Your task to perform on an android device: Open calendar and show me the fourth week of next month Image 0: 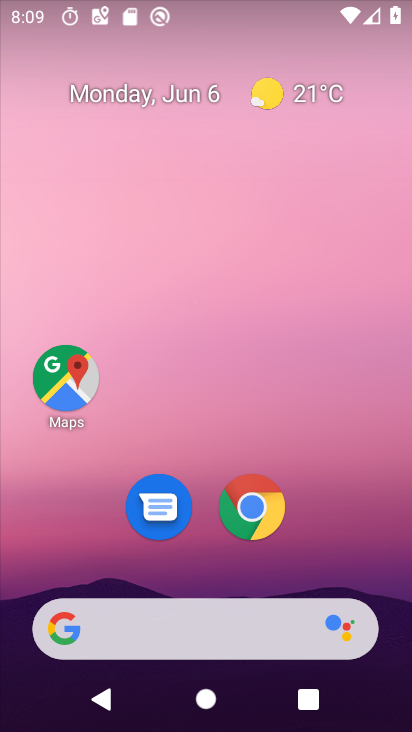
Step 0: drag from (376, 565) to (353, 0)
Your task to perform on an android device: Open calendar and show me the fourth week of next month Image 1: 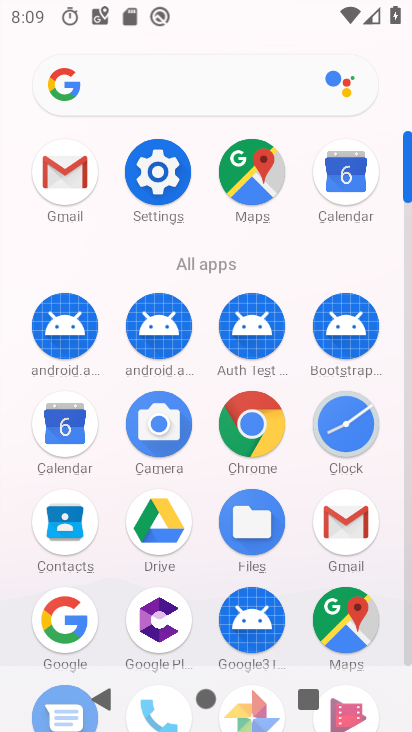
Step 1: click (83, 440)
Your task to perform on an android device: Open calendar and show me the fourth week of next month Image 2: 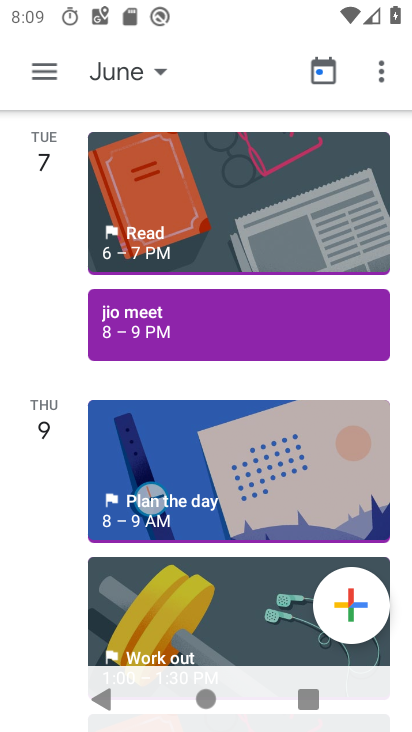
Step 2: click (171, 70)
Your task to perform on an android device: Open calendar and show me the fourth week of next month Image 3: 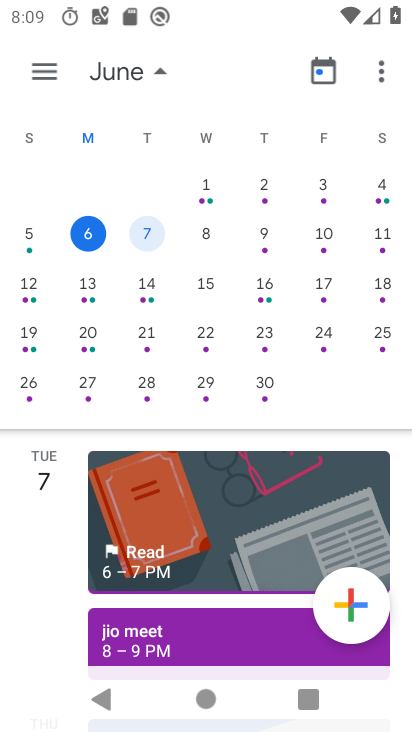
Step 3: drag from (395, 321) to (38, 343)
Your task to perform on an android device: Open calendar and show me the fourth week of next month Image 4: 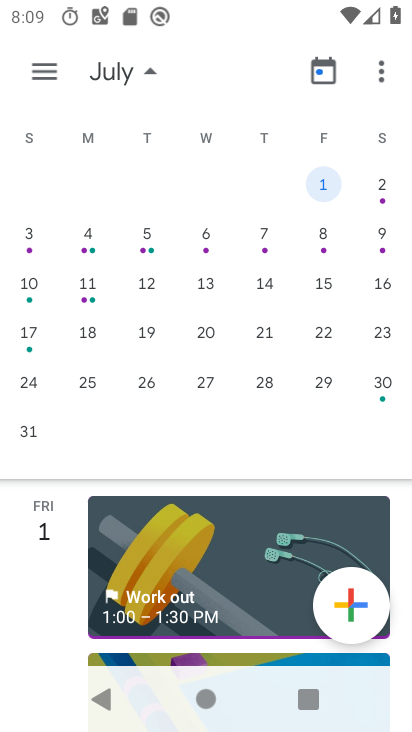
Step 4: click (334, 338)
Your task to perform on an android device: Open calendar and show me the fourth week of next month Image 5: 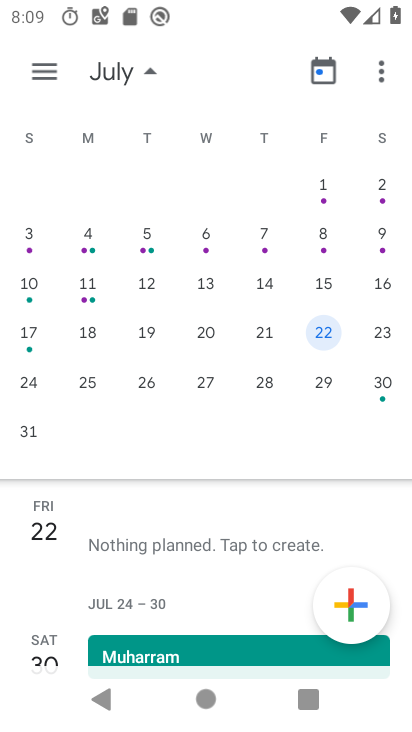
Step 5: task complete